Your task to perform on an android device: turn off data saver in the chrome app Image 0: 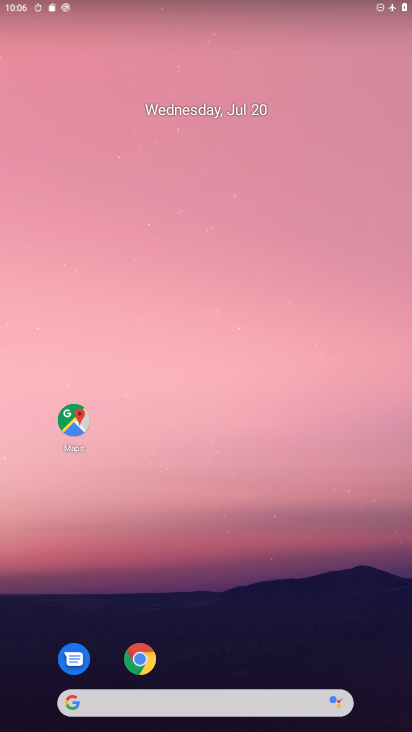
Step 0: drag from (289, 644) to (182, 22)
Your task to perform on an android device: turn off data saver in the chrome app Image 1: 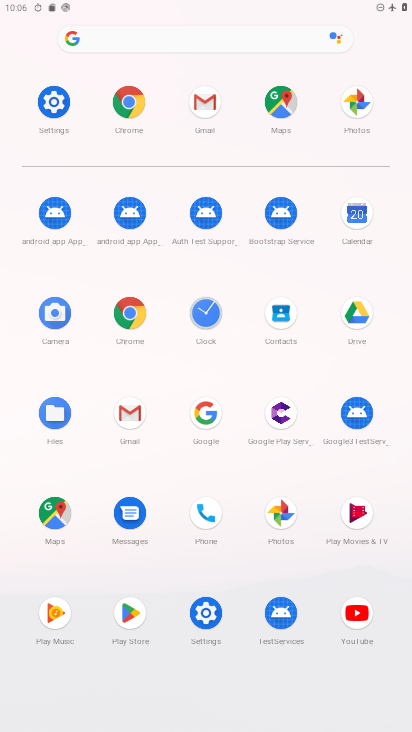
Step 1: click (125, 103)
Your task to perform on an android device: turn off data saver in the chrome app Image 2: 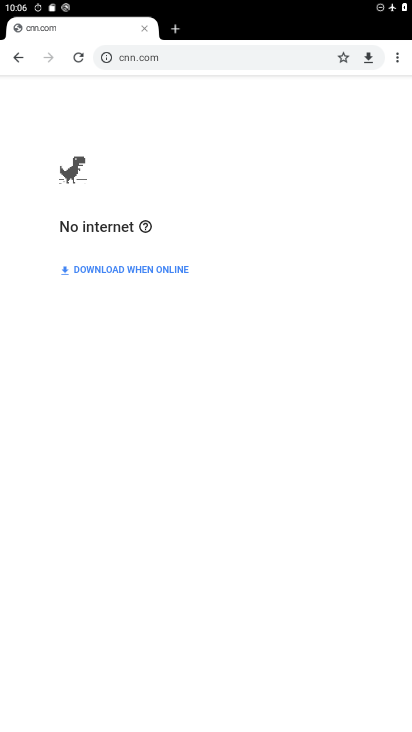
Step 2: drag from (395, 59) to (300, 346)
Your task to perform on an android device: turn off data saver in the chrome app Image 3: 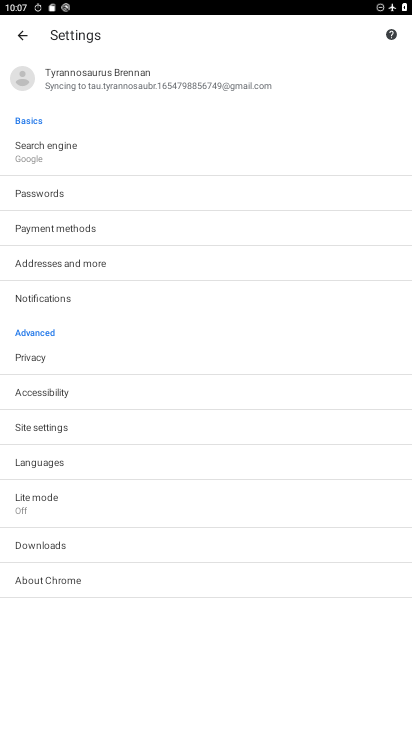
Step 3: click (40, 495)
Your task to perform on an android device: turn off data saver in the chrome app Image 4: 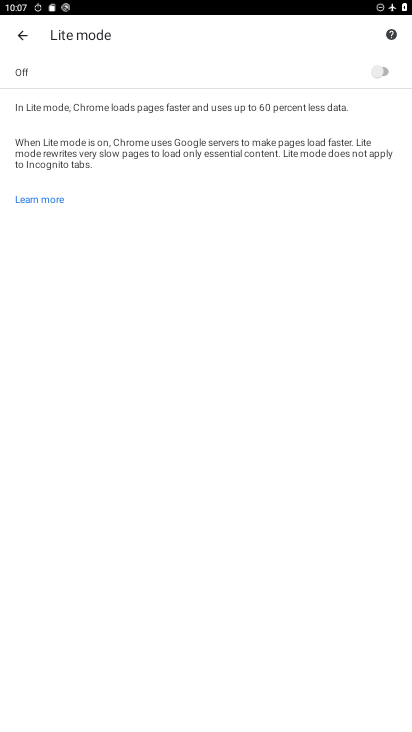
Step 4: task complete